Your task to perform on an android device: delete a single message in the gmail app Image 0: 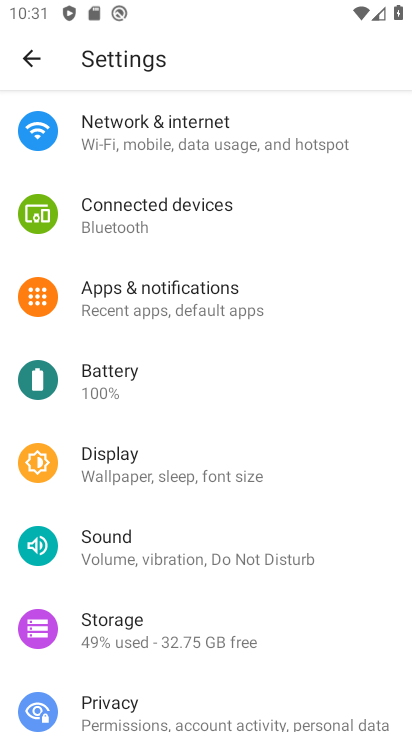
Step 0: press home button
Your task to perform on an android device: delete a single message in the gmail app Image 1: 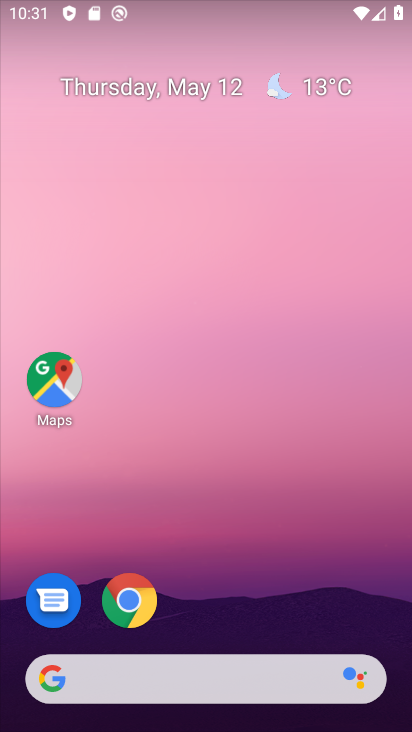
Step 1: drag from (393, 653) to (331, 135)
Your task to perform on an android device: delete a single message in the gmail app Image 2: 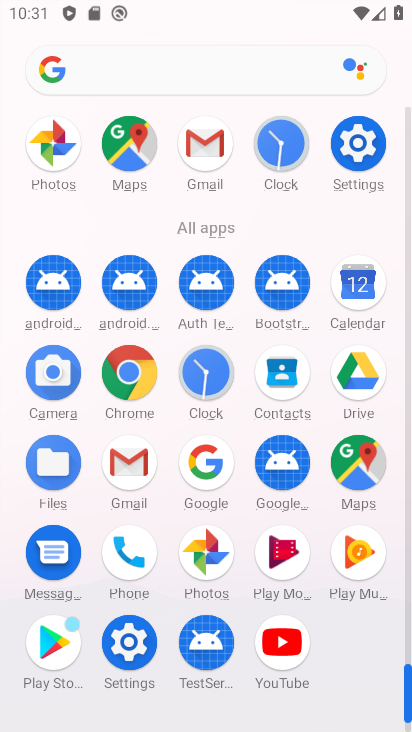
Step 2: click (129, 460)
Your task to perform on an android device: delete a single message in the gmail app Image 3: 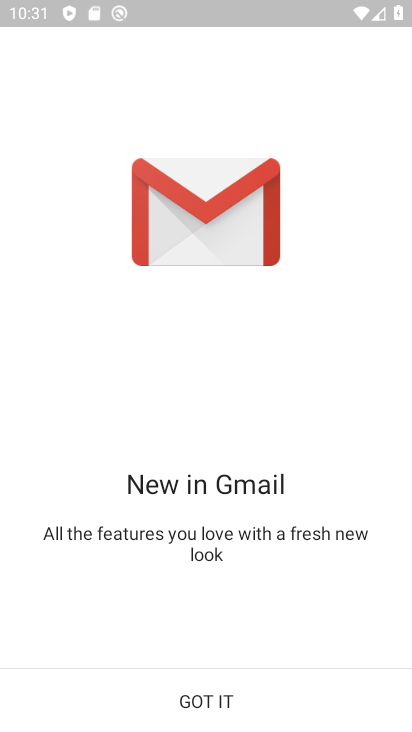
Step 3: click (210, 704)
Your task to perform on an android device: delete a single message in the gmail app Image 4: 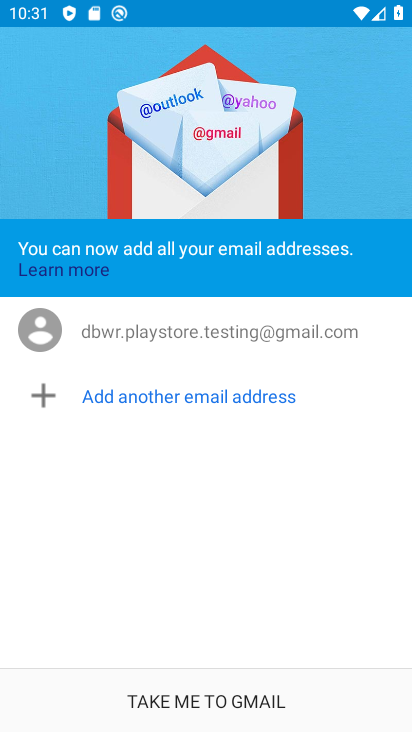
Step 4: click (210, 701)
Your task to perform on an android device: delete a single message in the gmail app Image 5: 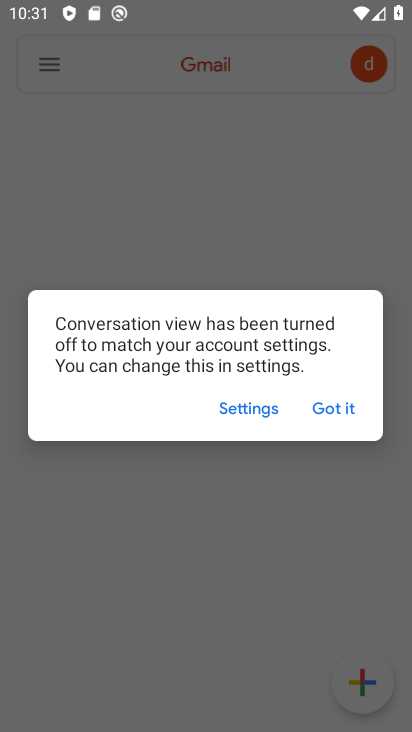
Step 5: click (327, 409)
Your task to perform on an android device: delete a single message in the gmail app Image 6: 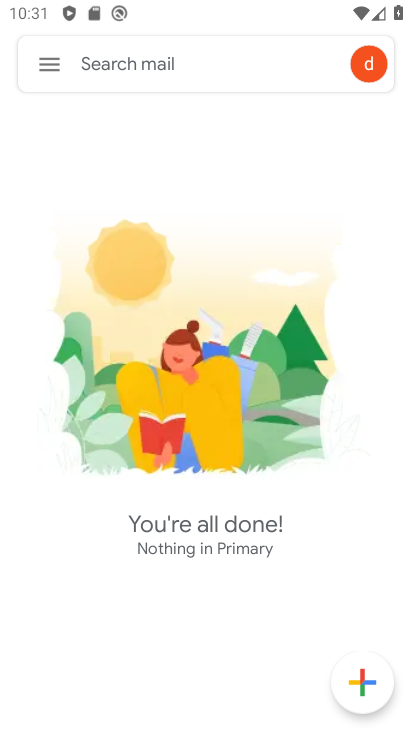
Step 6: click (41, 61)
Your task to perform on an android device: delete a single message in the gmail app Image 7: 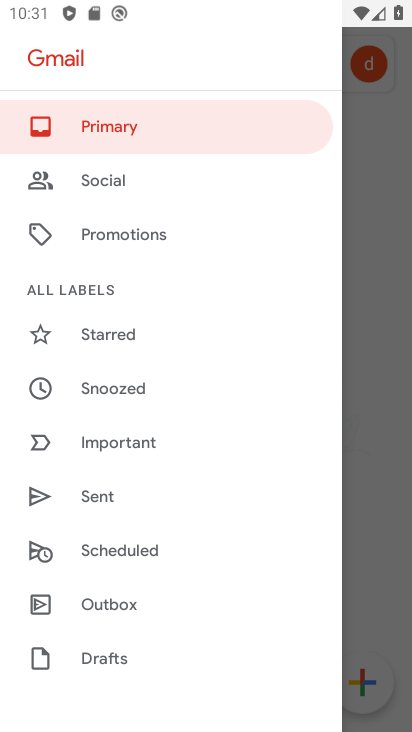
Step 7: drag from (190, 566) to (216, 202)
Your task to perform on an android device: delete a single message in the gmail app Image 8: 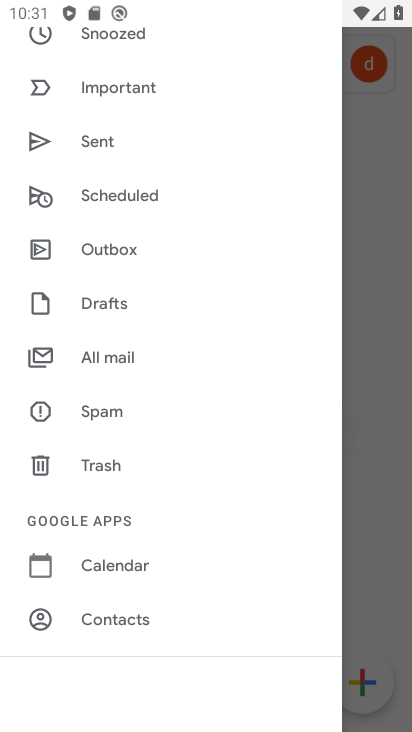
Step 8: click (107, 352)
Your task to perform on an android device: delete a single message in the gmail app Image 9: 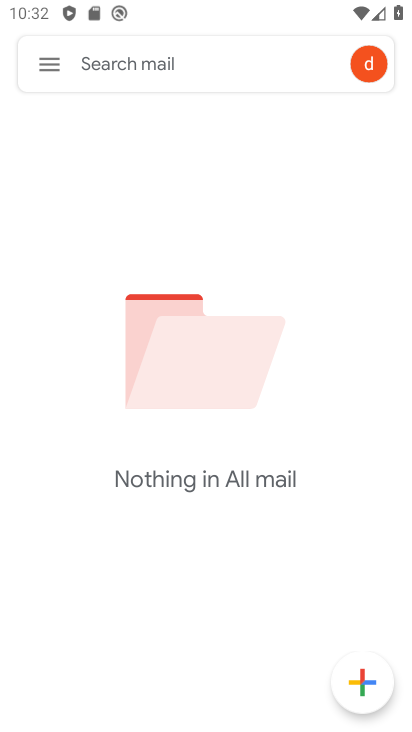
Step 9: task complete